Your task to perform on an android device: show emergency info Image 0: 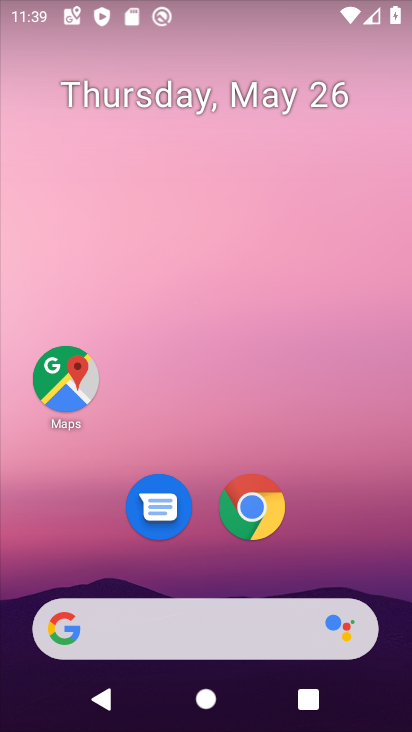
Step 0: drag from (362, 514) to (282, 69)
Your task to perform on an android device: show emergency info Image 1: 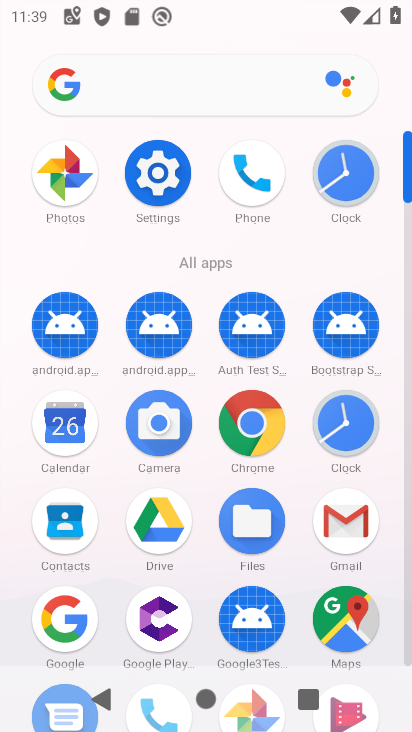
Step 1: click (175, 189)
Your task to perform on an android device: show emergency info Image 2: 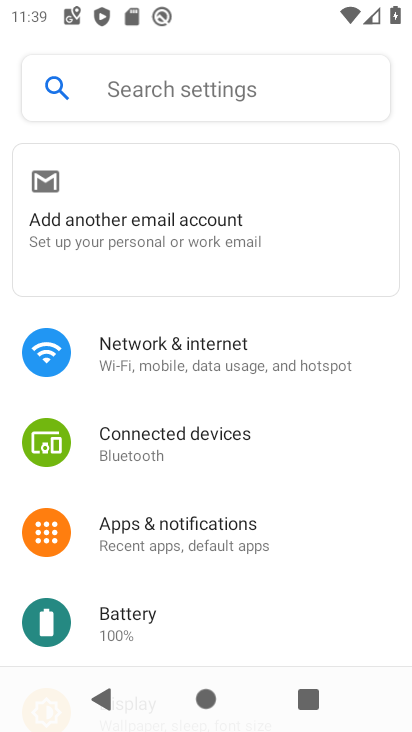
Step 2: drag from (238, 557) to (242, 136)
Your task to perform on an android device: show emergency info Image 3: 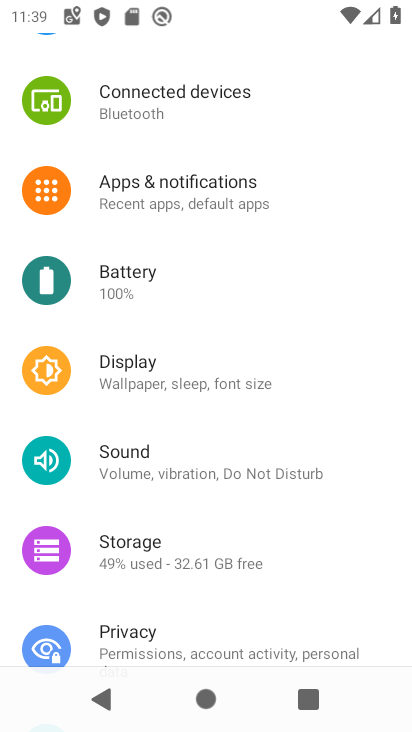
Step 3: drag from (188, 564) to (225, 208)
Your task to perform on an android device: show emergency info Image 4: 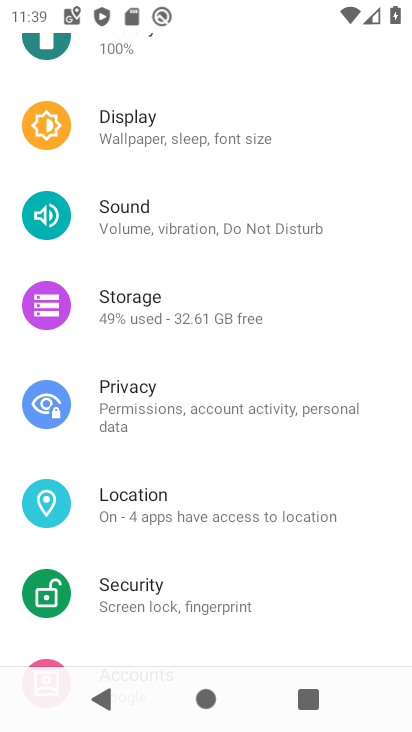
Step 4: drag from (256, 508) to (261, 102)
Your task to perform on an android device: show emergency info Image 5: 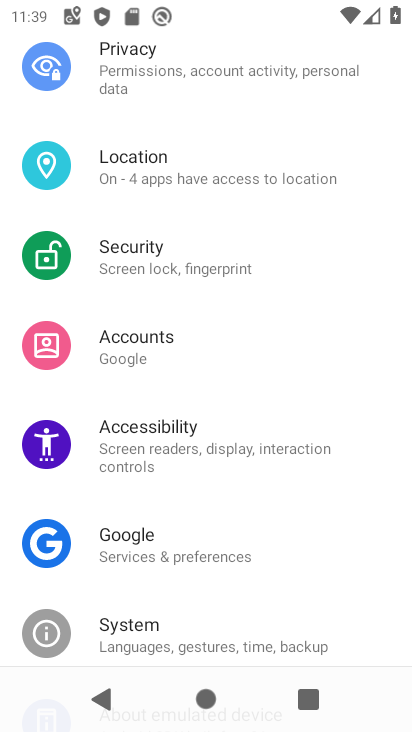
Step 5: drag from (208, 474) to (293, 146)
Your task to perform on an android device: show emergency info Image 6: 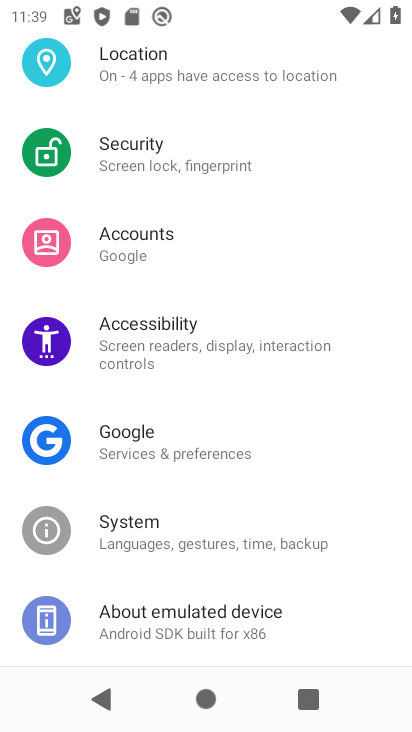
Step 6: click (243, 631)
Your task to perform on an android device: show emergency info Image 7: 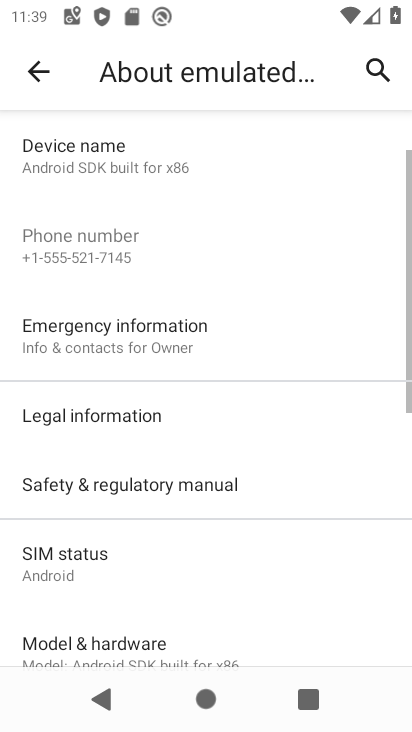
Step 7: click (174, 349)
Your task to perform on an android device: show emergency info Image 8: 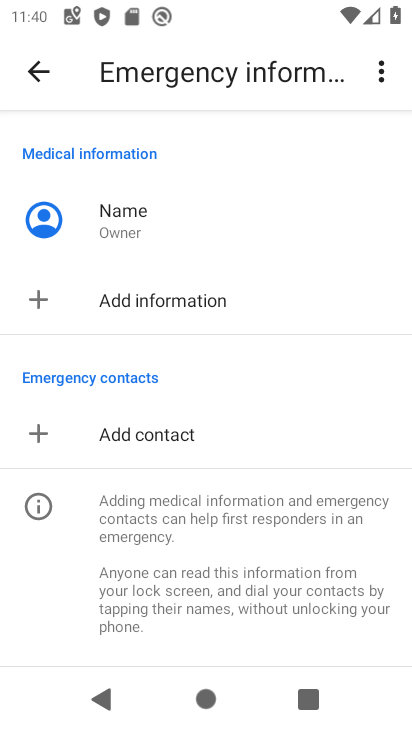
Step 8: task complete